Your task to perform on an android device: allow cookies in the chrome app Image 0: 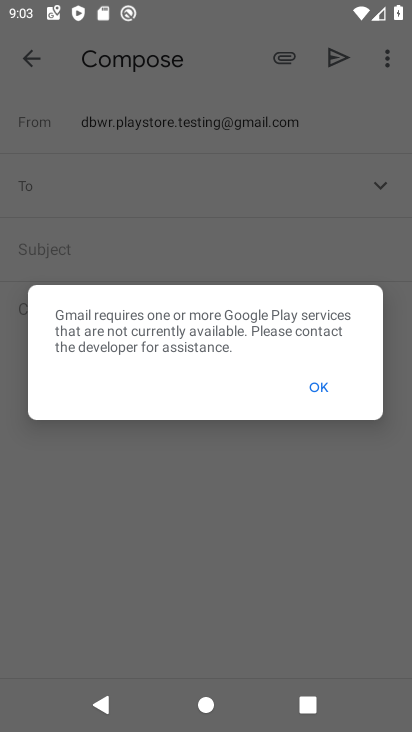
Step 0: press home button
Your task to perform on an android device: allow cookies in the chrome app Image 1: 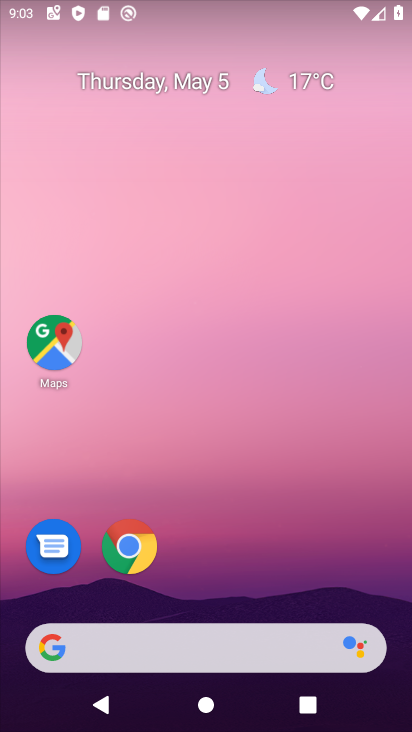
Step 1: drag from (145, 650) to (303, 97)
Your task to perform on an android device: allow cookies in the chrome app Image 2: 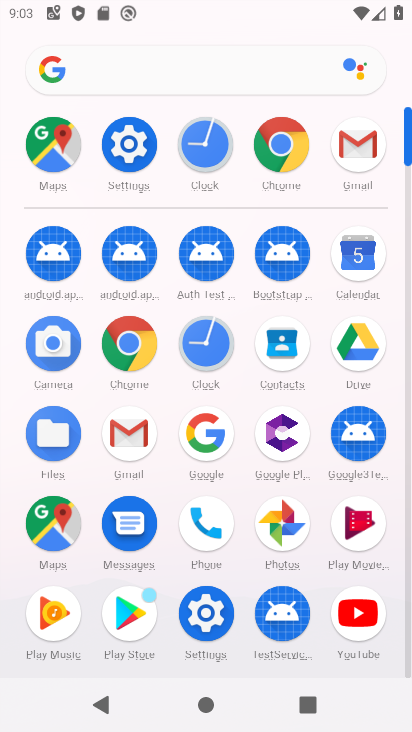
Step 2: click (281, 155)
Your task to perform on an android device: allow cookies in the chrome app Image 3: 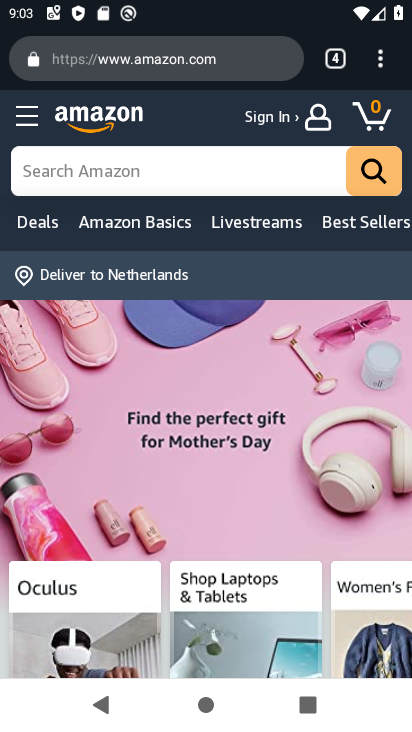
Step 3: drag from (381, 62) to (204, 568)
Your task to perform on an android device: allow cookies in the chrome app Image 4: 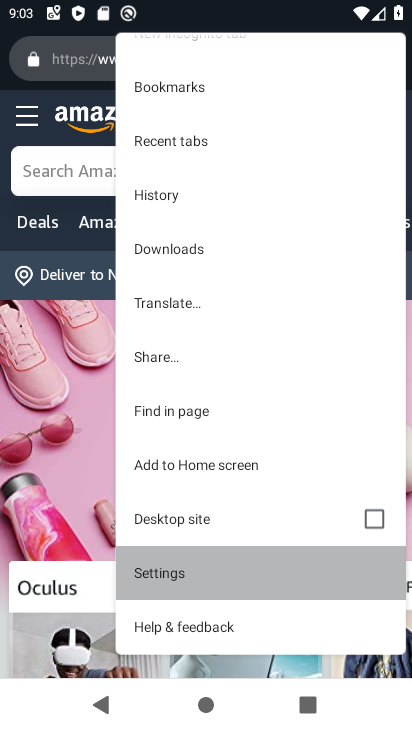
Step 4: click (204, 568)
Your task to perform on an android device: allow cookies in the chrome app Image 5: 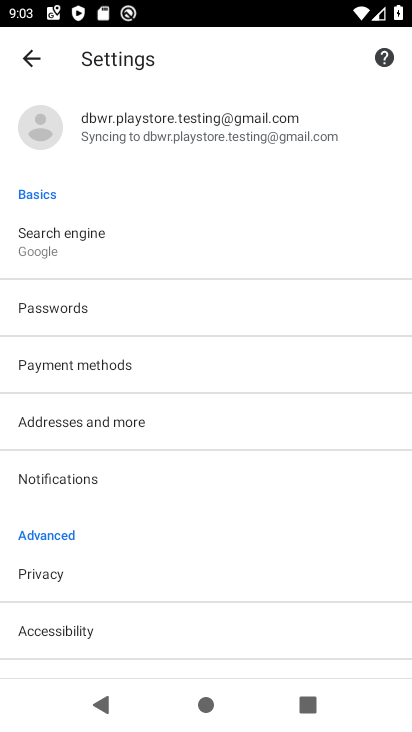
Step 5: drag from (134, 617) to (261, 359)
Your task to perform on an android device: allow cookies in the chrome app Image 6: 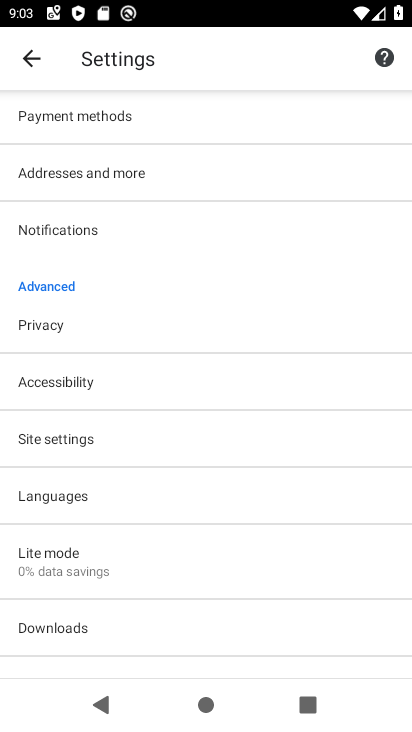
Step 6: click (119, 435)
Your task to perform on an android device: allow cookies in the chrome app Image 7: 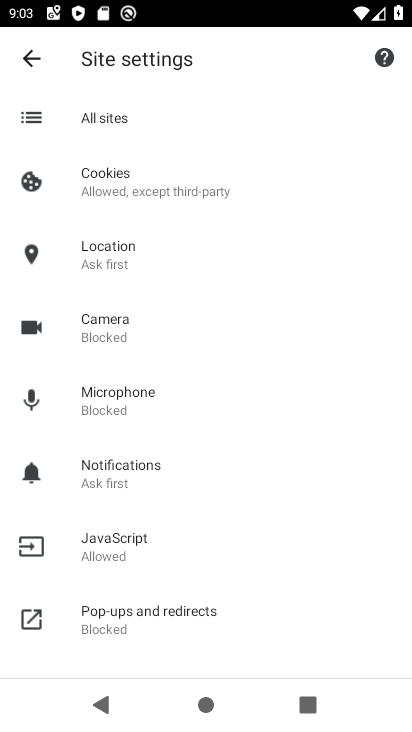
Step 7: click (148, 175)
Your task to perform on an android device: allow cookies in the chrome app Image 8: 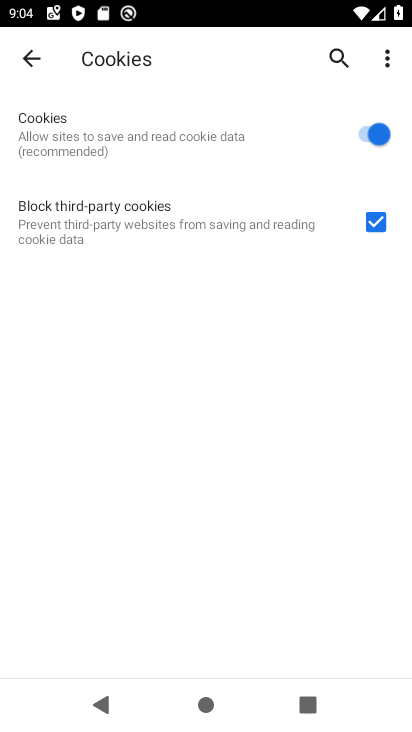
Step 8: task complete